Your task to perform on an android device: When is my next appointment? Image 0: 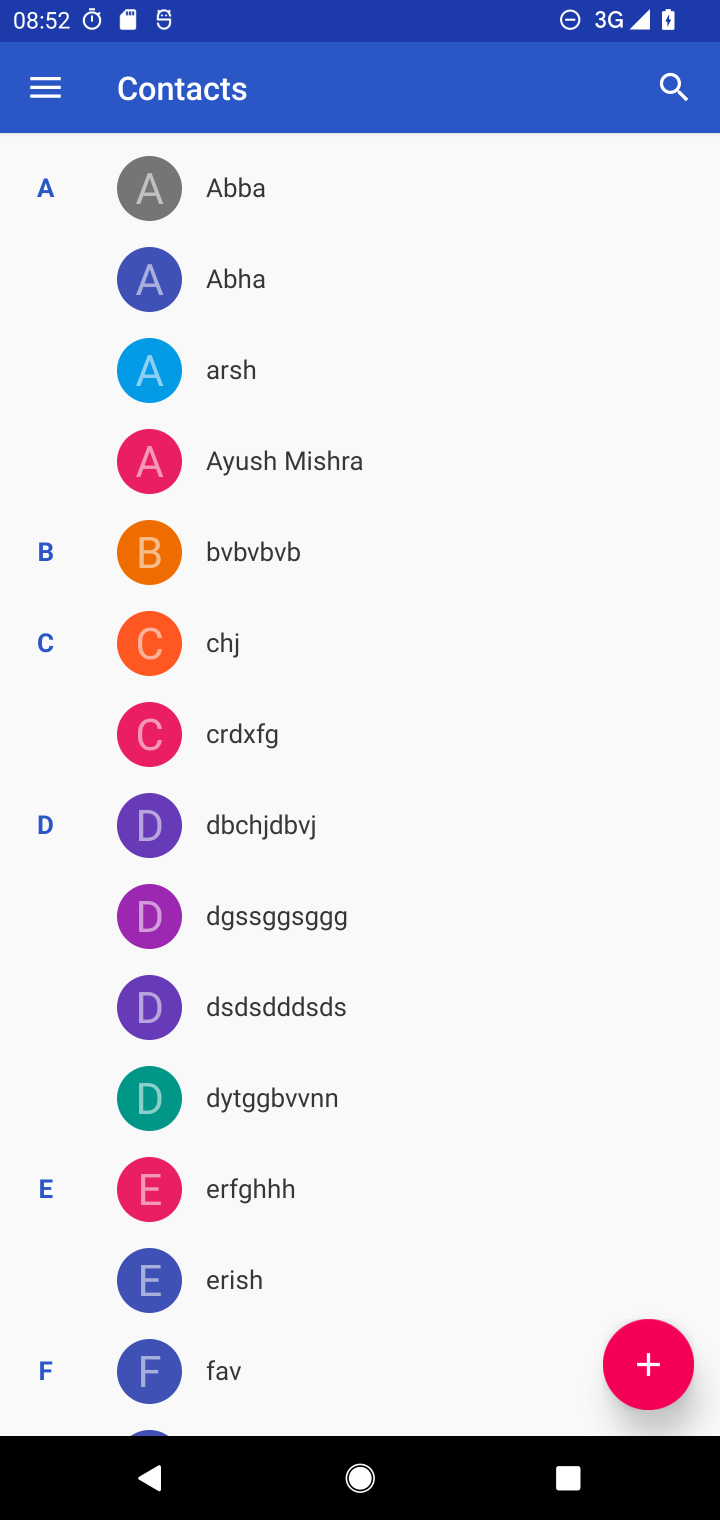
Step 0: press home button
Your task to perform on an android device: When is my next appointment? Image 1: 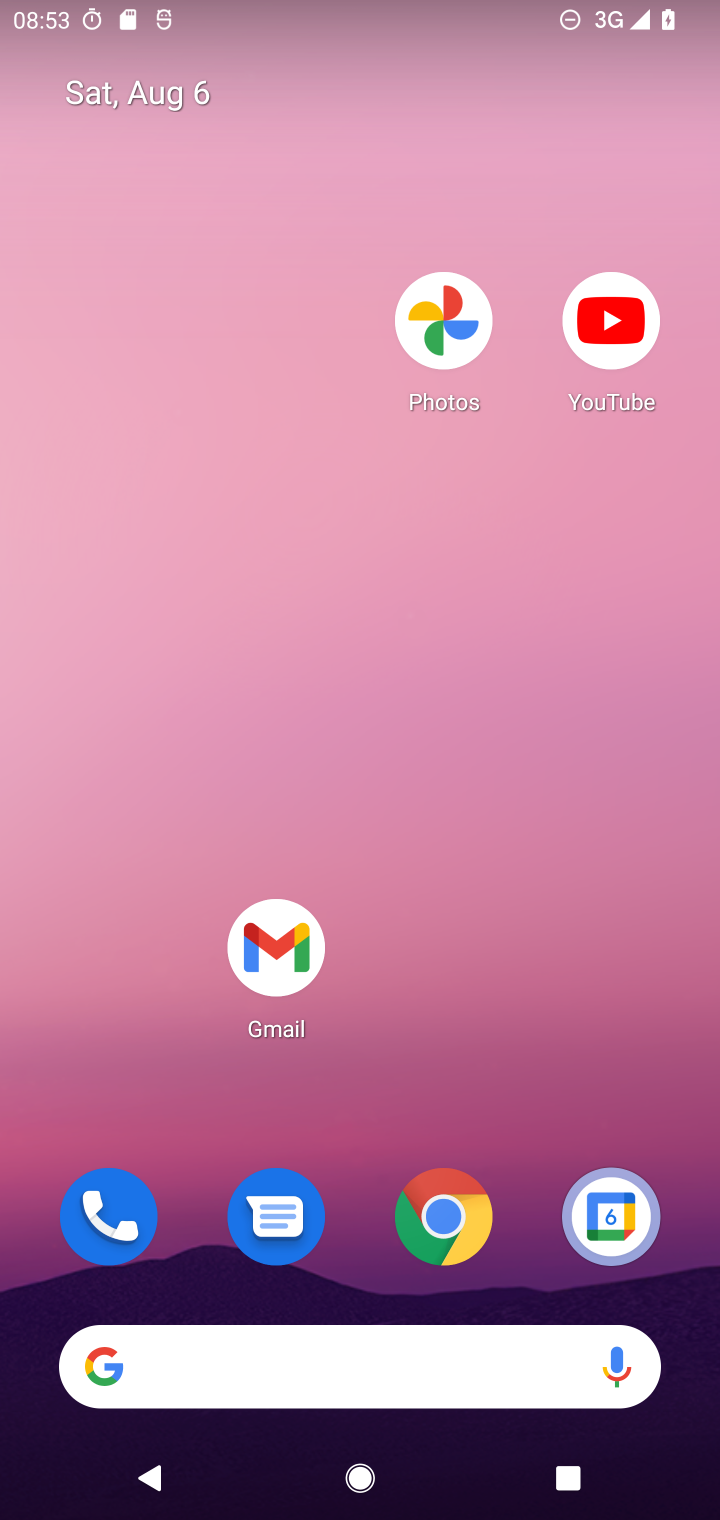
Step 1: drag from (497, 991) to (434, 43)
Your task to perform on an android device: When is my next appointment? Image 2: 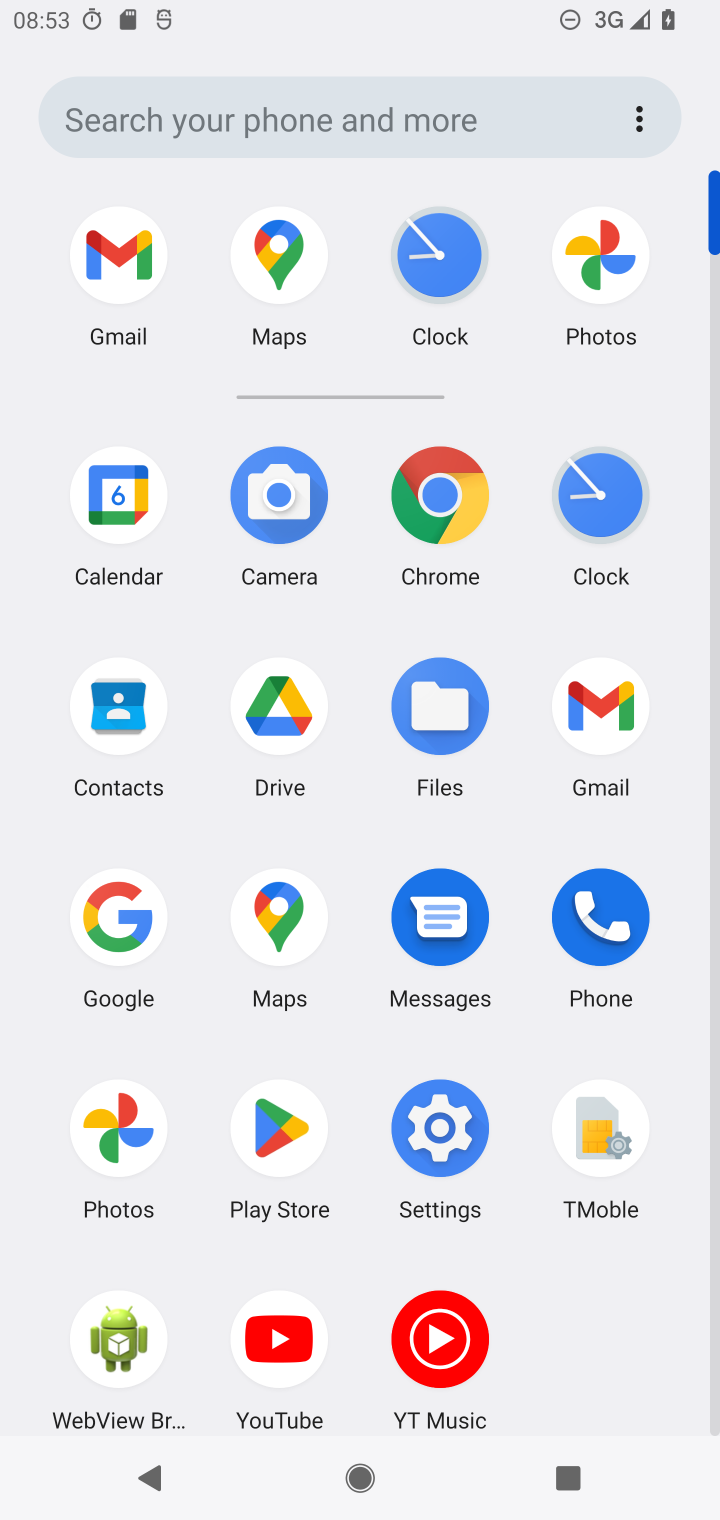
Step 2: click (111, 542)
Your task to perform on an android device: When is my next appointment? Image 3: 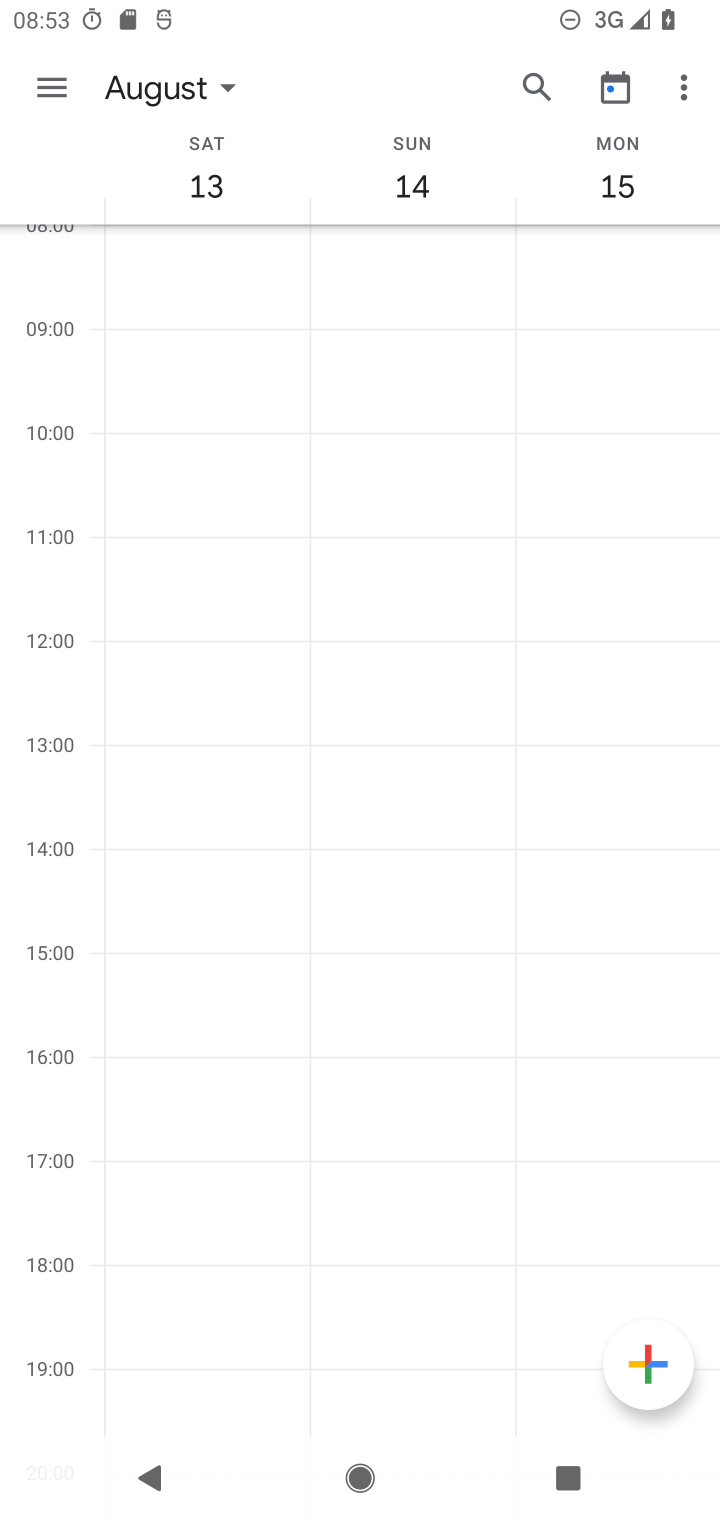
Step 3: click (203, 171)
Your task to perform on an android device: When is my next appointment? Image 4: 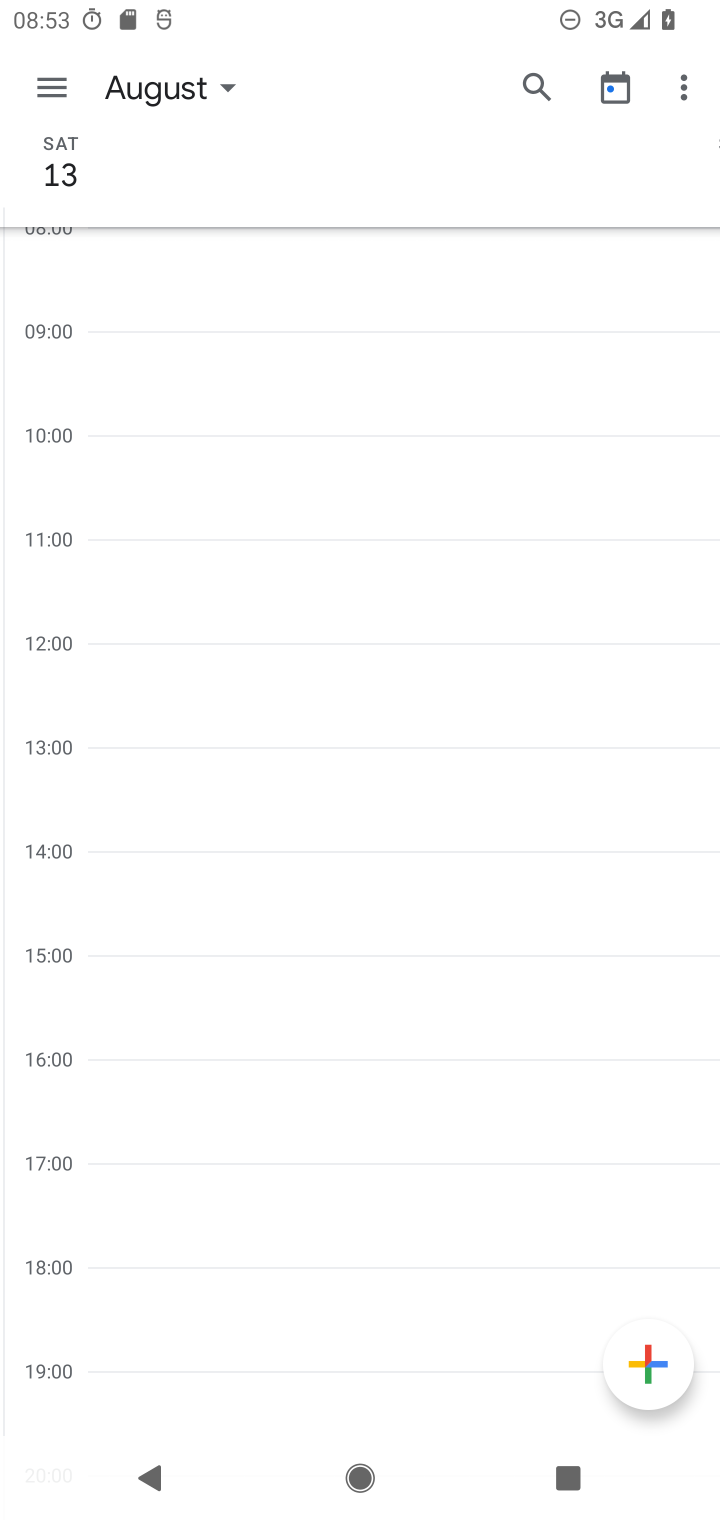
Step 4: click (205, 83)
Your task to perform on an android device: When is my next appointment? Image 5: 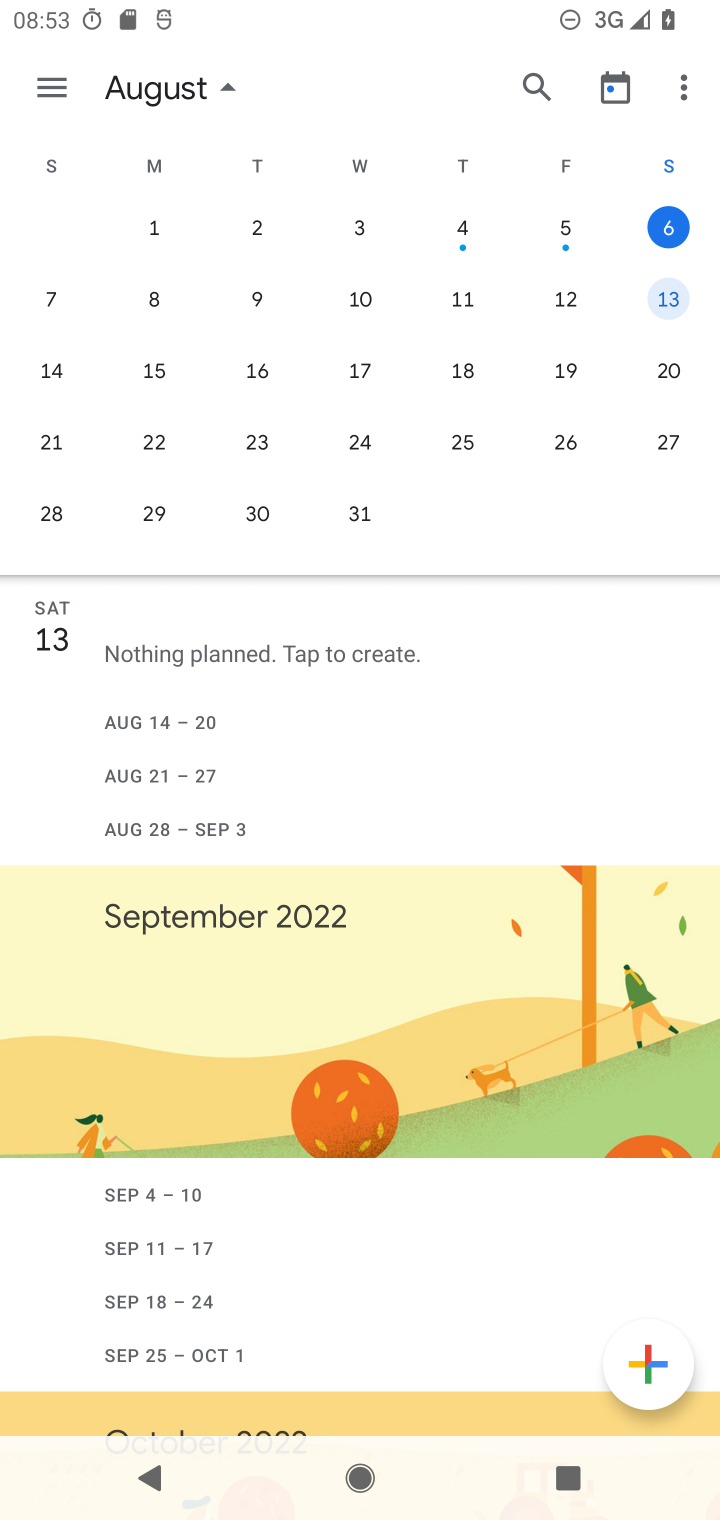
Step 5: click (668, 221)
Your task to perform on an android device: When is my next appointment? Image 6: 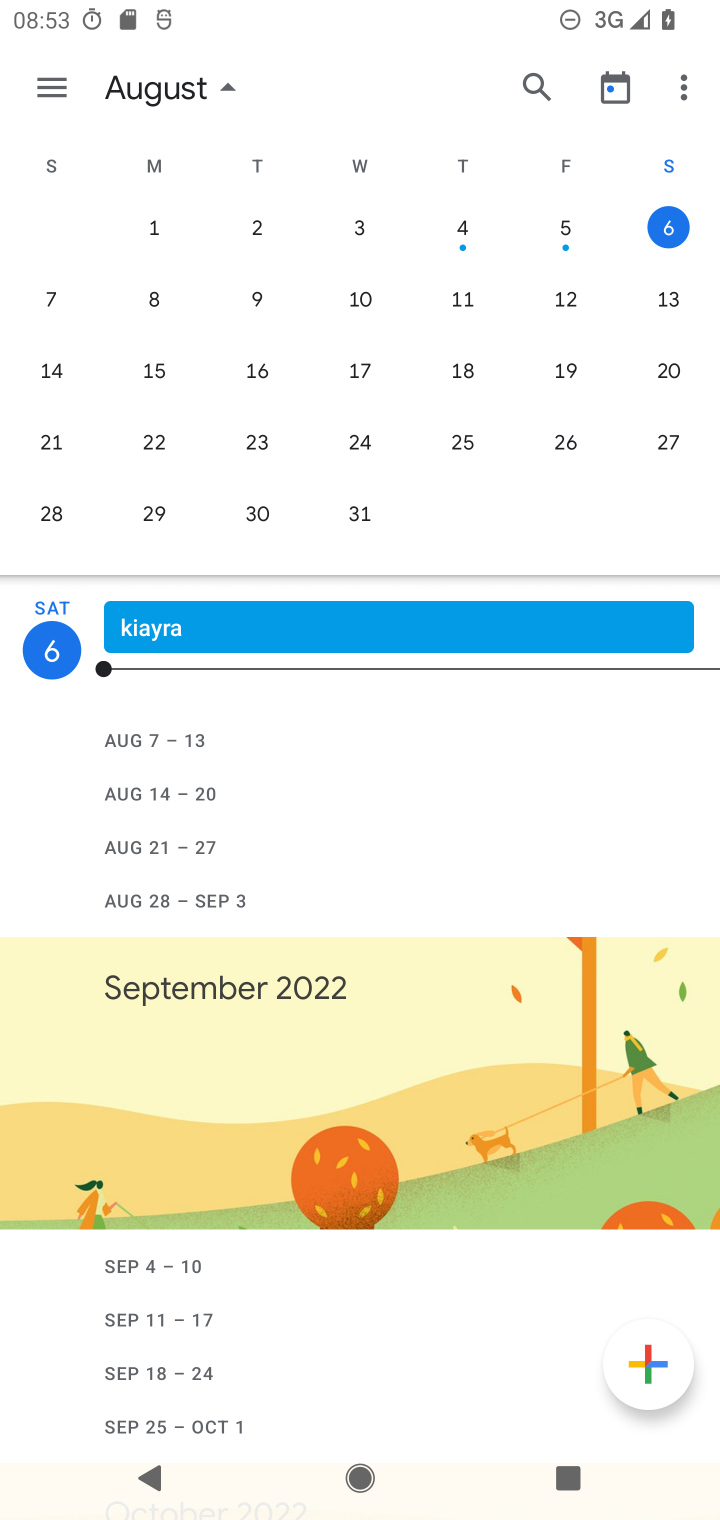
Step 6: click (32, 90)
Your task to perform on an android device: When is my next appointment? Image 7: 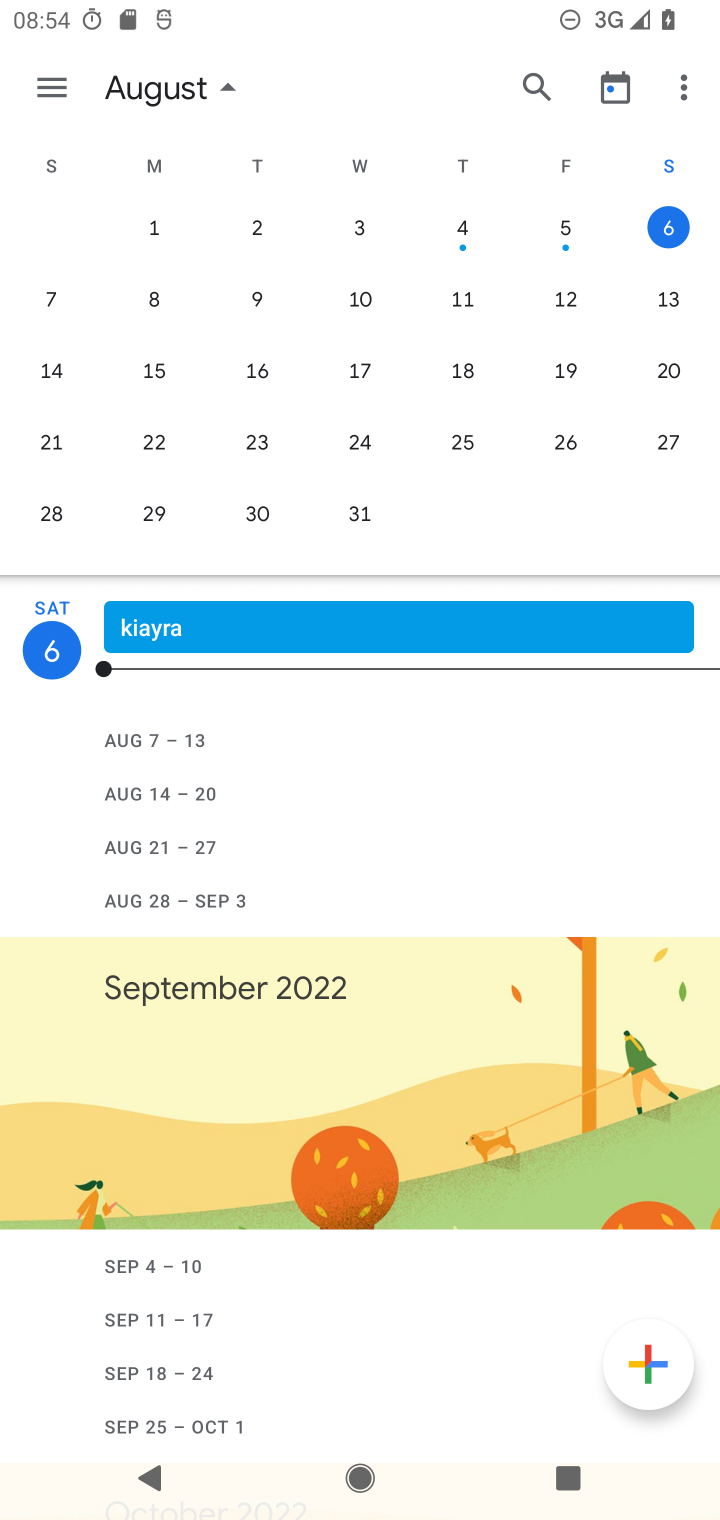
Step 7: click (54, 74)
Your task to perform on an android device: When is my next appointment? Image 8: 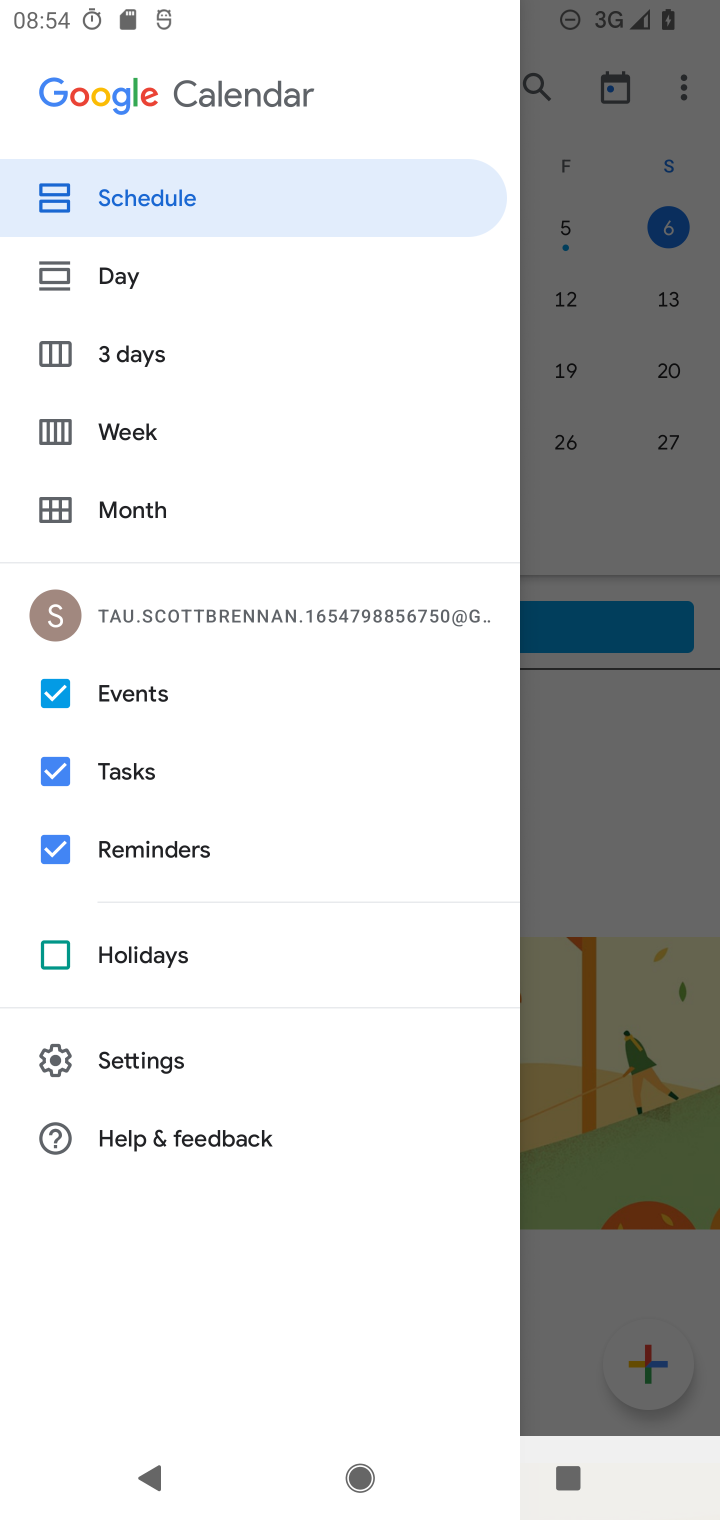
Step 8: click (103, 334)
Your task to perform on an android device: When is my next appointment? Image 9: 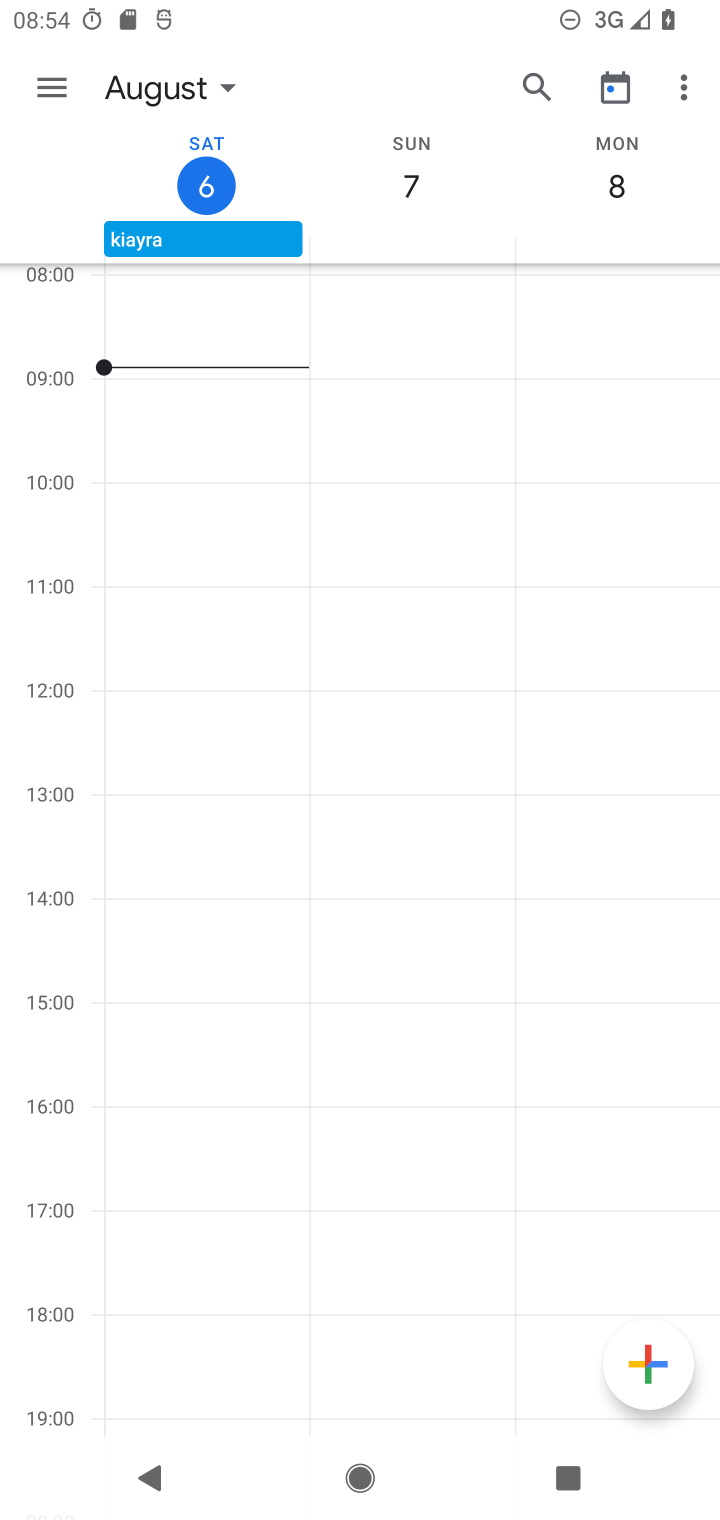
Step 9: task complete